Your task to perform on an android device: Turn on the flashlight Image 0: 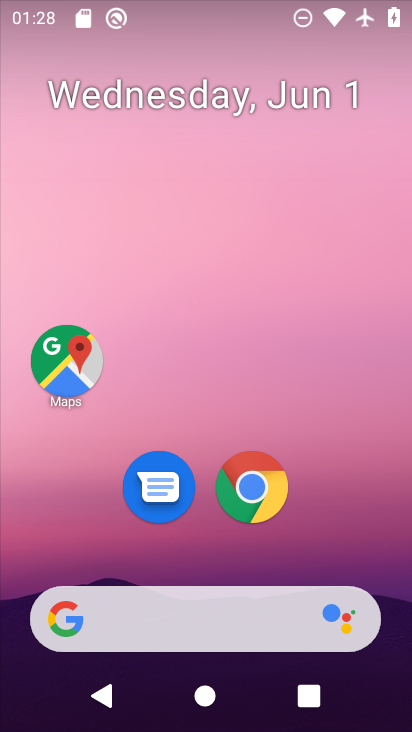
Step 0: drag from (316, 550) to (326, 221)
Your task to perform on an android device: Turn on the flashlight Image 1: 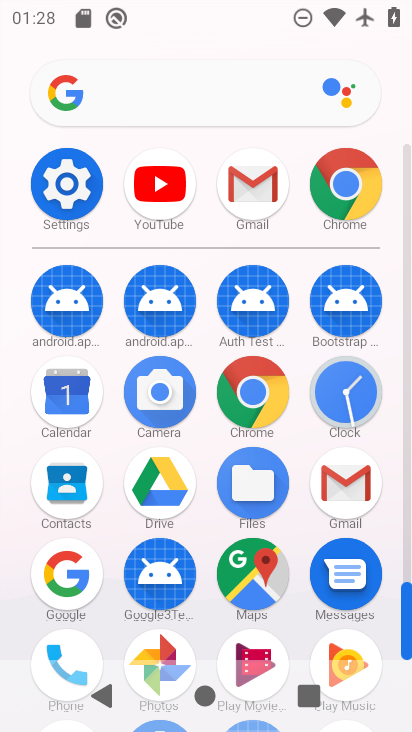
Step 1: click (42, 176)
Your task to perform on an android device: Turn on the flashlight Image 2: 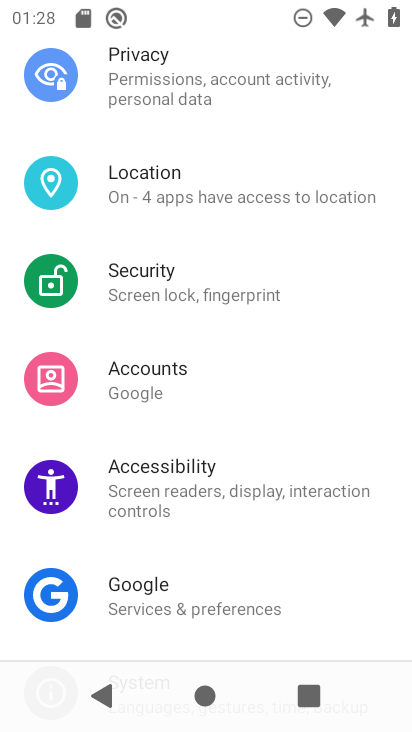
Step 2: task complete